Your task to perform on an android device: toggle airplane mode Image 0: 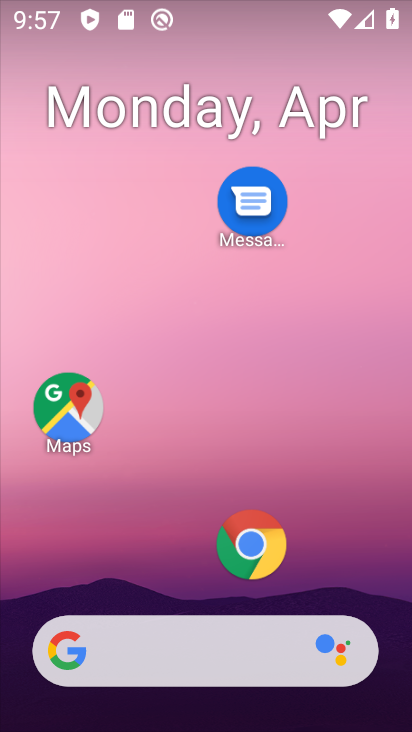
Step 0: drag from (203, 559) to (245, 0)
Your task to perform on an android device: toggle airplane mode Image 1: 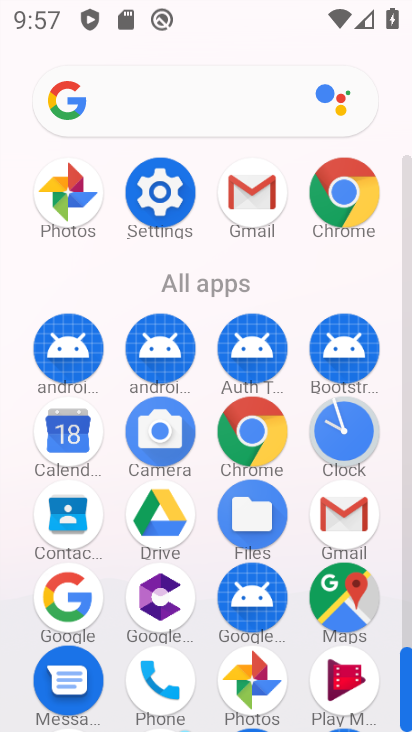
Step 1: drag from (243, 11) to (241, 595)
Your task to perform on an android device: toggle airplane mode Image 2: 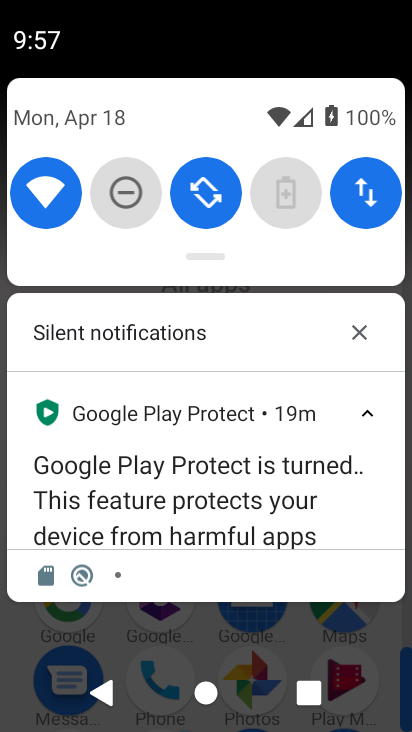
Step 2: drag from (220, 269) to (221, 729)
Your task to perform on an android device: toggle airplane mode Image 3: 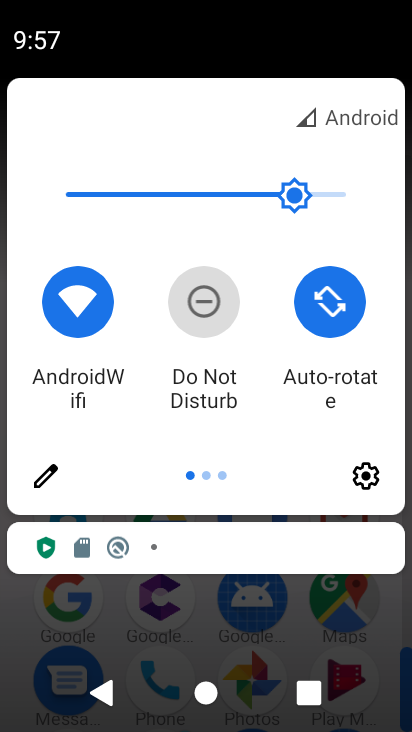
Step 3: drag from (341, 336) to (0, 325)
Your task to perform on an android device: toggle airplane mode Image 4: 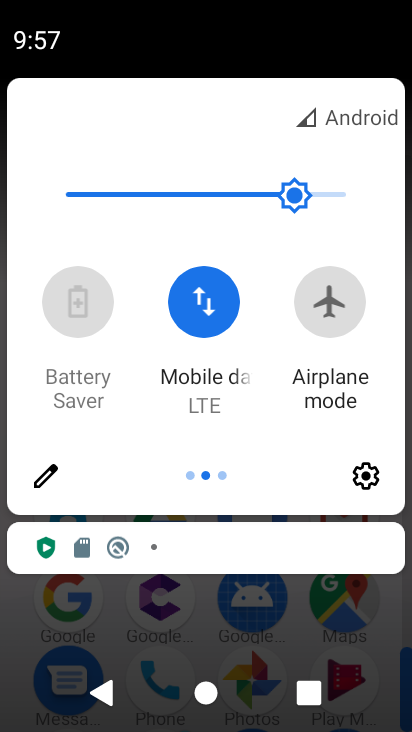
Step 4: click (328, 304)
Your task to perform on an android device: toggle airplane mode Image 5: 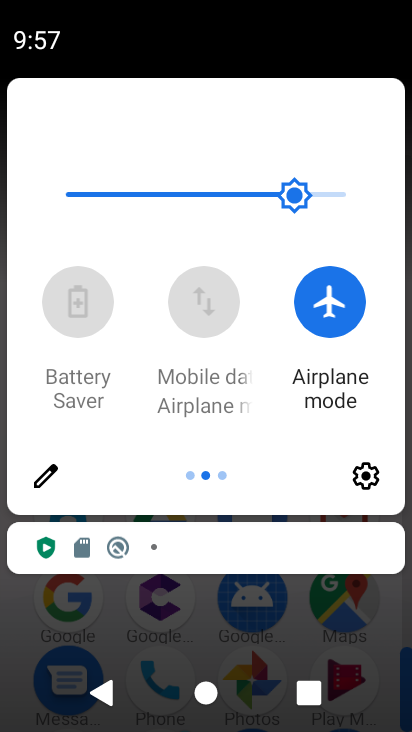
Step 5: task complete